Your task to perform on an android device: open app "Roku - Official Remote Control" (install if not already installed) and enter user name: "autumnal@gmail.com" and password: "stuffing" Image 0: 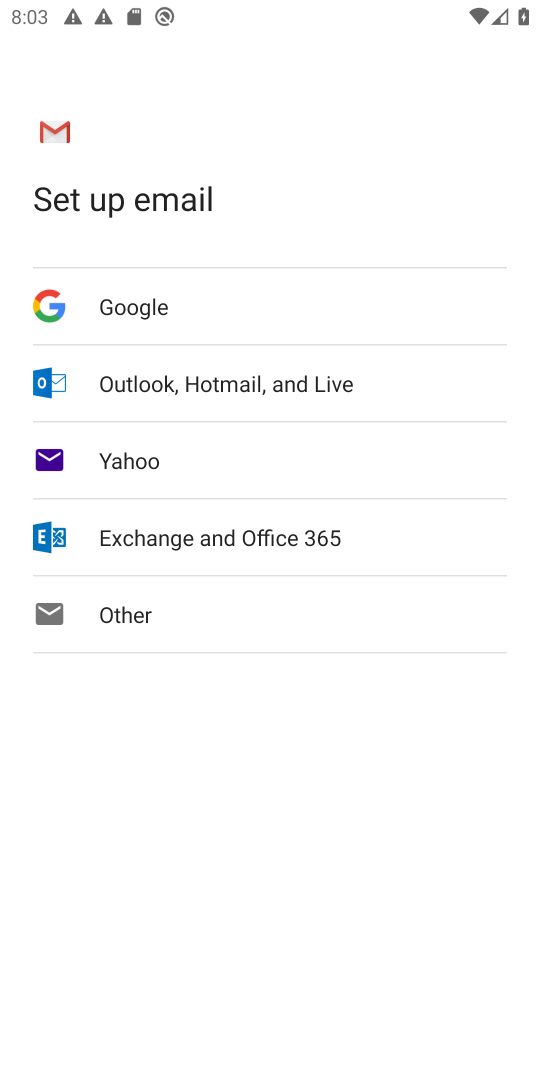
Step 0: press home button
Your task to perform on an android device: open app "Roku - Official Remote Control" (install if not already installed) and enter user name: "autumnal@gmail.com" and password: "stuffing" Image 1: 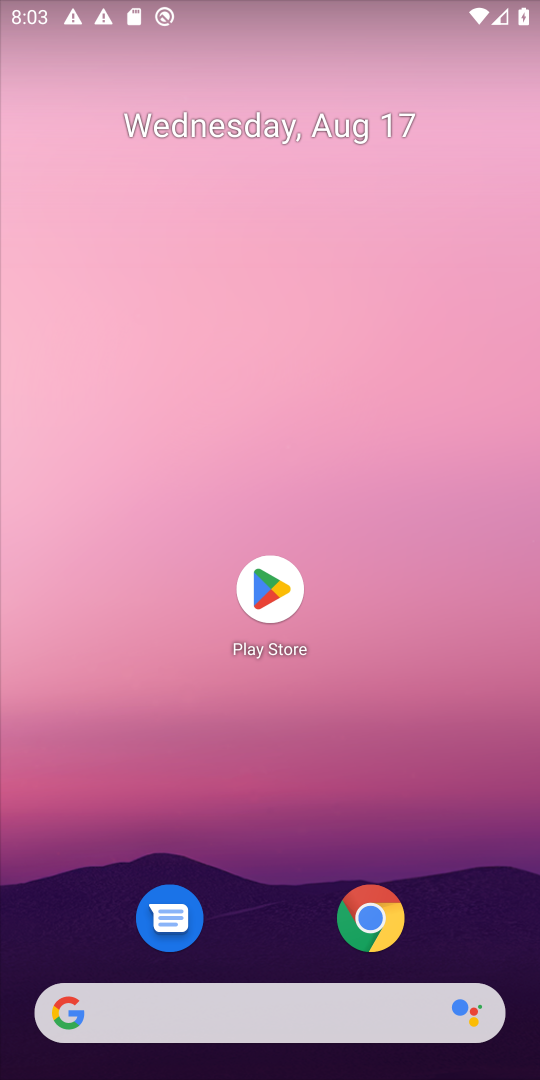
Step 1: click (262, 592)
Your task to perform on an android device: open app "Roku - Official Remote Control" (install if not already installed) and enter user name: "autumnal@gmail.com" and password: "stuffing" Image 2: 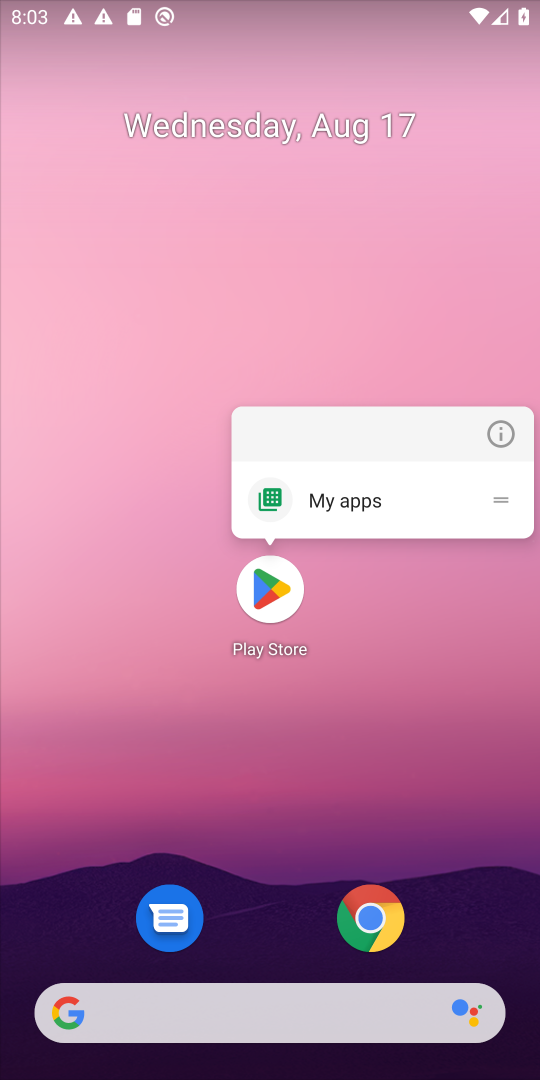
Step 2: click (270, 592)
Your task to perform on an android device: open app "Roku - Official Remote Control" (install if not already installed) and enter user name: "autumnal@gmail.com" and password: "stuffing" Image 3: 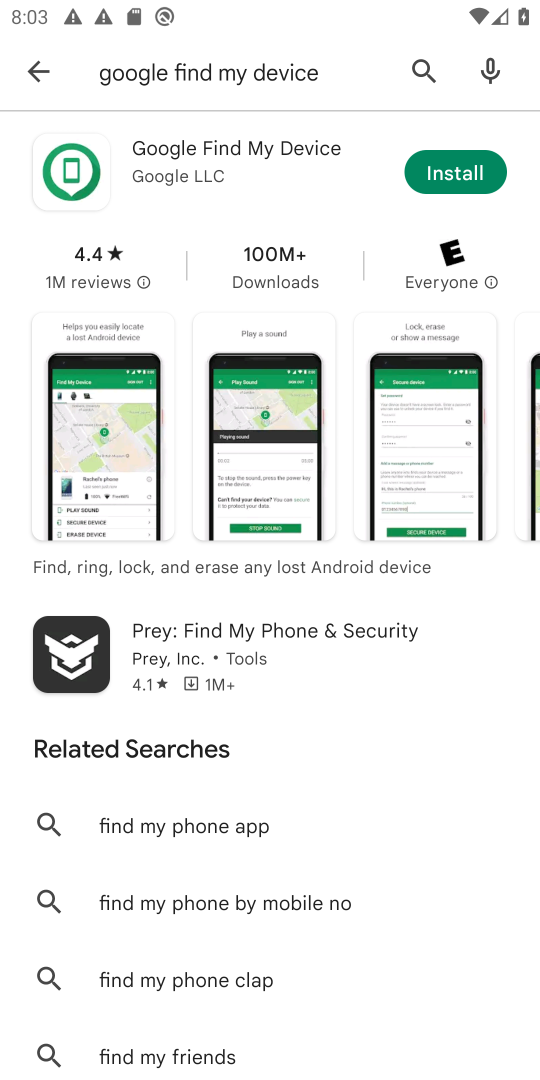
Step 3: click (419, 65)
Your task to perform on an android device: open app "Roku - Official Remote Control" (install if not already installed) and enter user name: "autumnal@gmail.com" and password: "stuffing" Image 4: 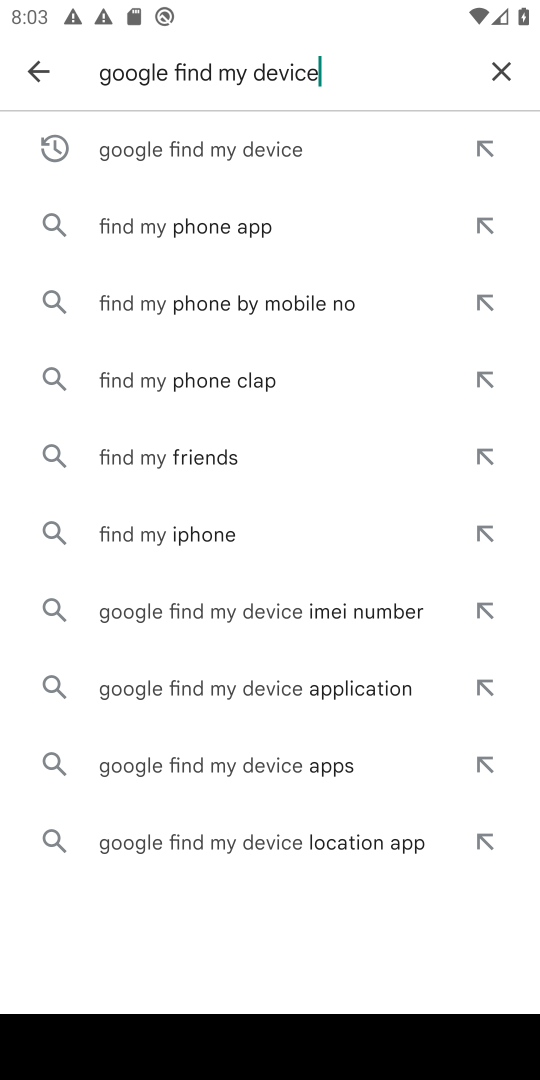
Step 4: click (493, 73)
Your task to perform on an android device: open app "Roku - Official Remote Control" (install if not already installed) and enter user name: "autumnal@gmail.com" and password: "stuffing" Image 5: 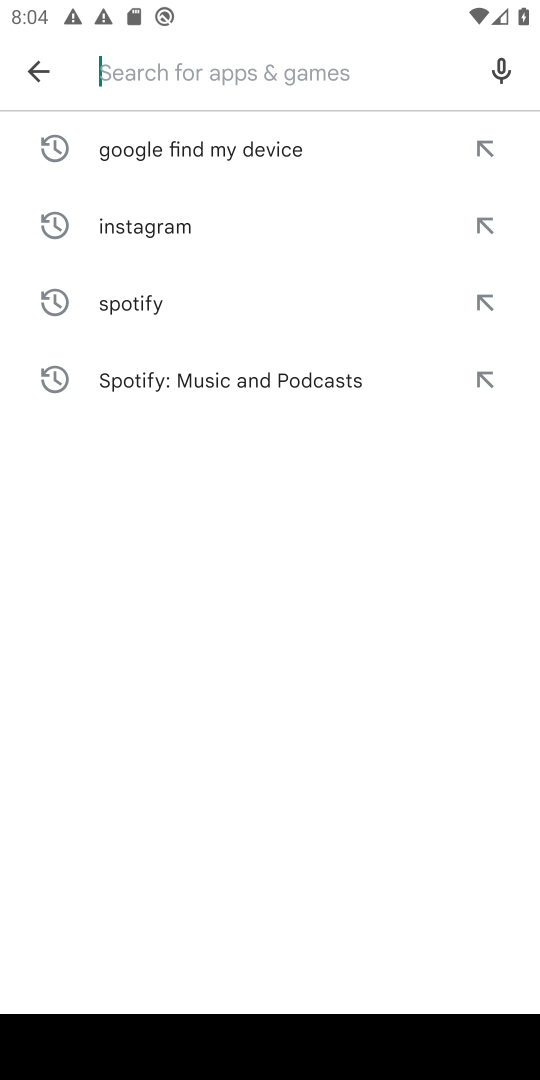
Step 5: type "Roku - Official Remote Control"
Your task to perform on an android device: open app "Roku - Official Remote Control" (install if not already installed) and enter user name: "autumnal@gmail.com" and password: "stuffing" Image 6: 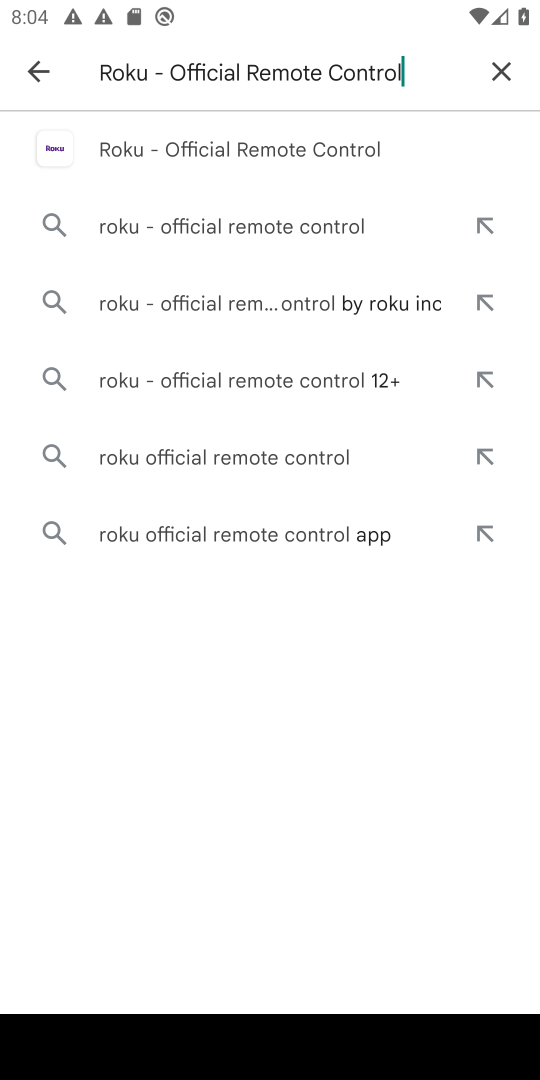
Step 6: click (269, 150)
Your task to perform on an android device: open app "Roku - Official Remote Control" (install if not already installed) and enter user name: "autumnal@gmail.com" and password: "stuffing" Image 7: 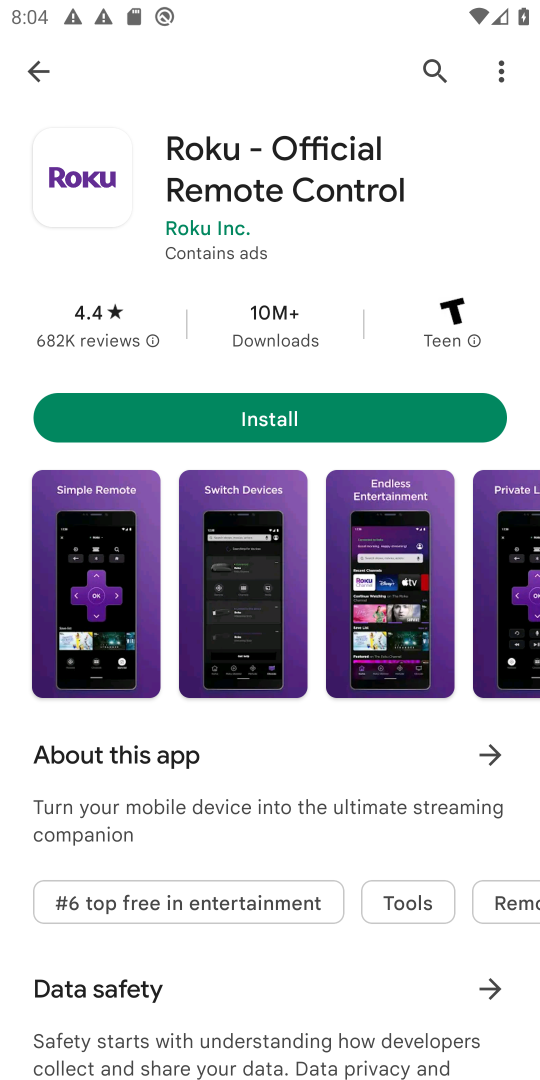
Step 7: click (261, 422)
Your task to perform on an android device: open app "Roku - Official Remote Control" (install if not already installed) and enter user name: "autumnal@gmail.com" and password: "stuffing" Image 8: 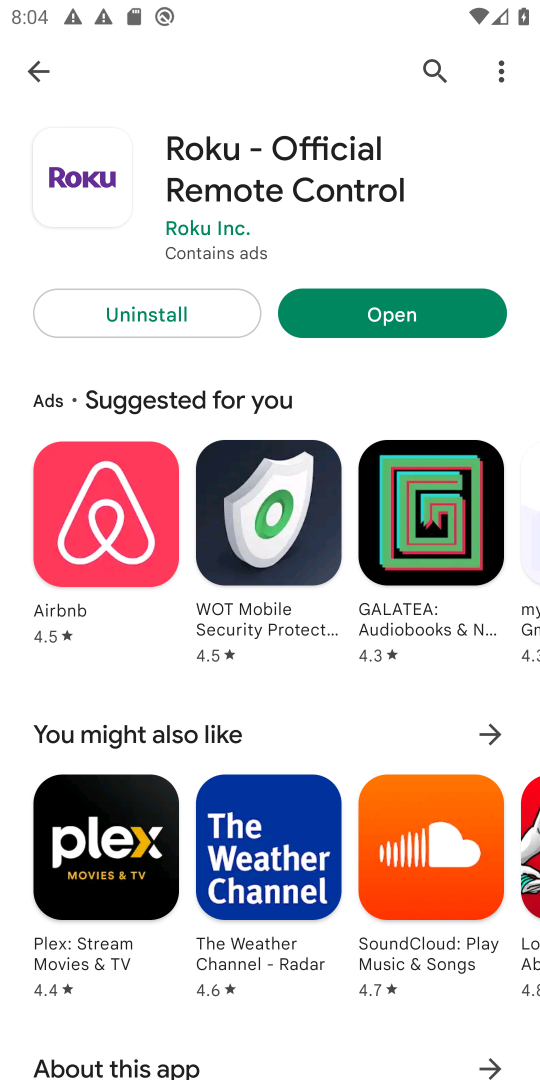
Step 8: click (388, 321)
Your task to perform on an android device: open app "Roku - Official Remote Control" (install if not already installed) and enter user name: "autumnal@gmail.com" and password: "stuffing" Image 9: 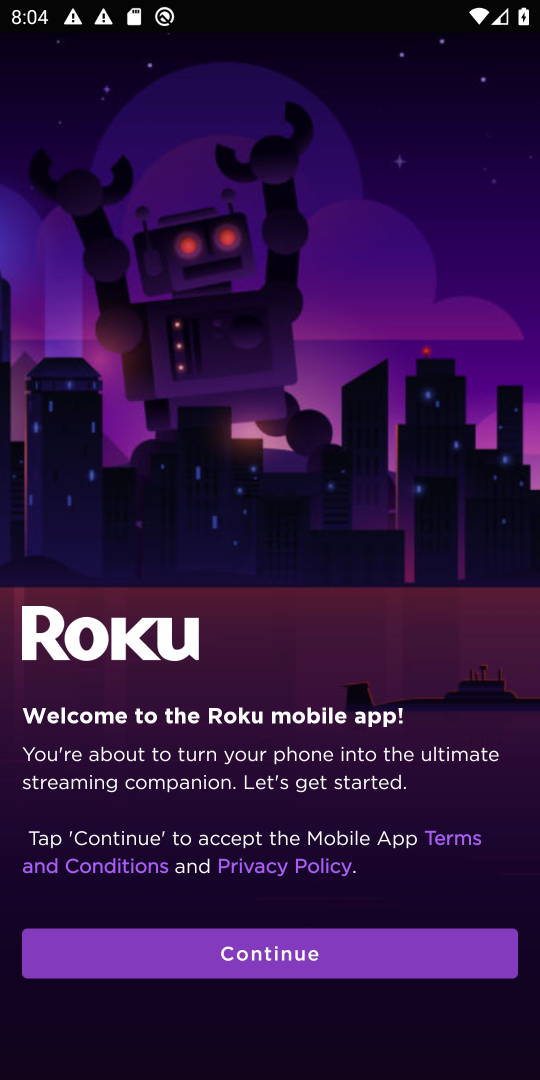
Step 9: click (281, 954)
Your task to perform on an android device: open app "Roku - Official Remote Control" (install if not already installed) and enter user name: "autumnal@gmail.com" and password: "stuffing" Image 10: 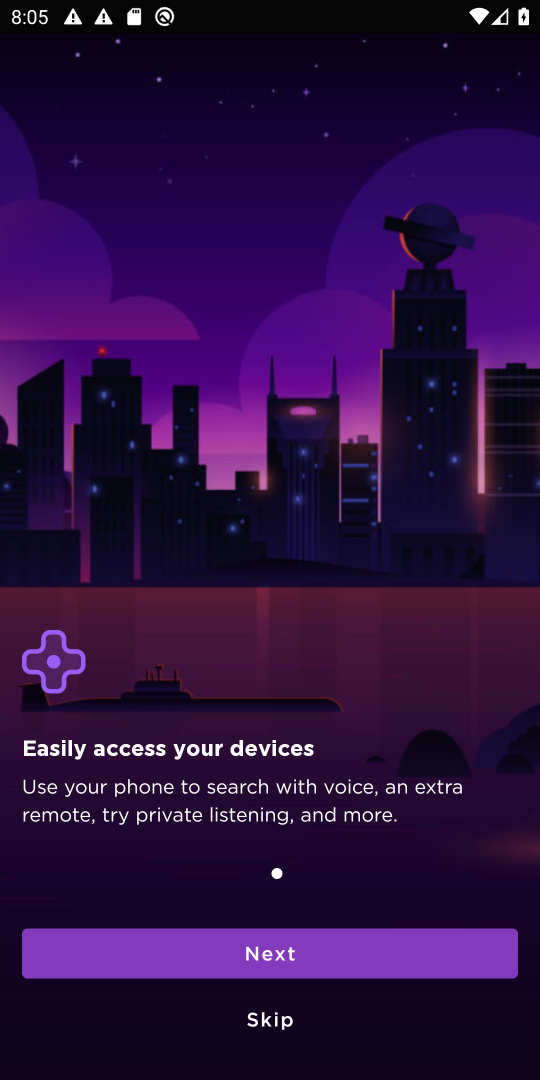
Step 10: click (264, 1018)
Your task to perform on an android device: open app "Roku - Official Remote Control" (install if not already installed) and enter user name: "autumnal@gmail.com" and password: "stuffing" Image 11: 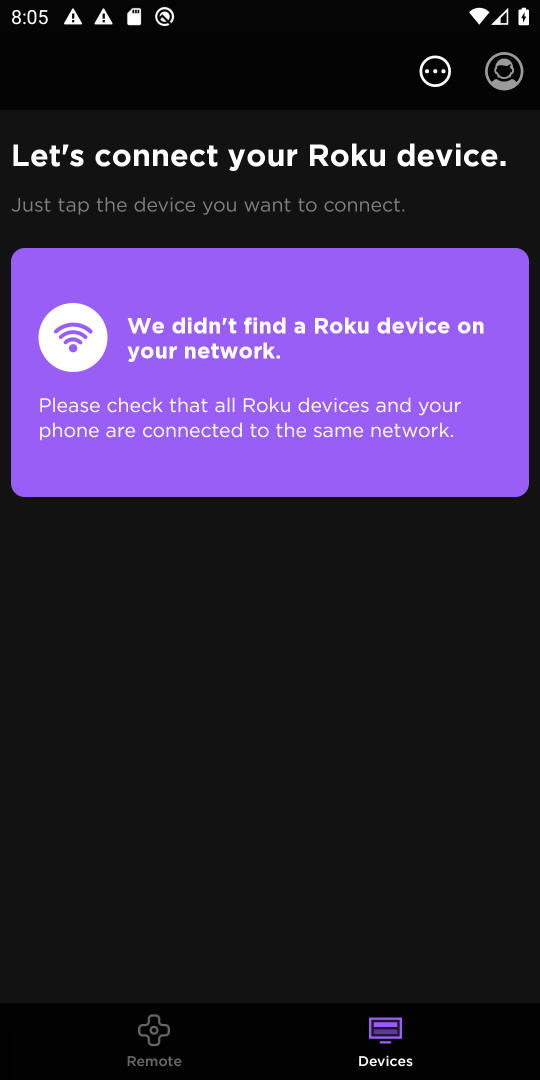
Step 11: click (493, 76)
Your task to perform on an android device: open app "Roku - Official Remote Control" (install if not already installed) and enter user name: "autumnal@gmail.com" and password: "stuffing" Image 12: 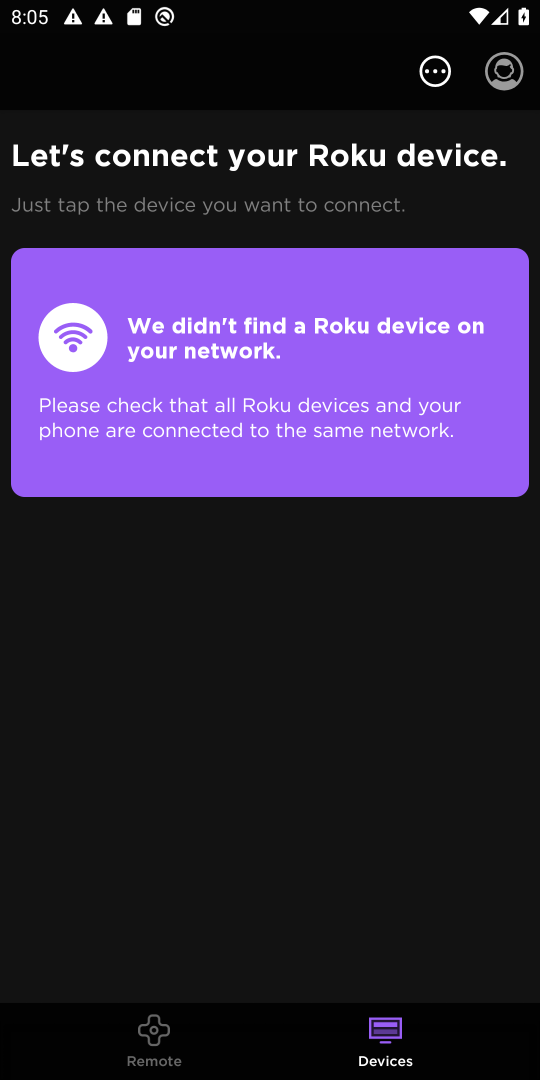
Step 12: task complete